Your task to perform on an android device: turn off smart reply in the gmail app Image 0: 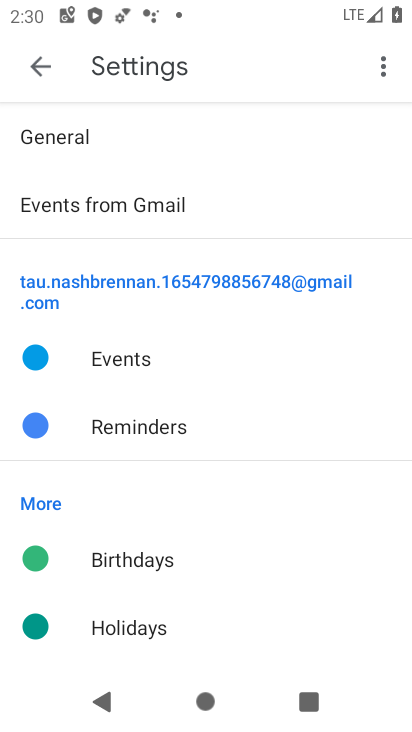
Step 0: press home button
Your task to perform on an android device: turn off smart reply in the gmail app Image 1: 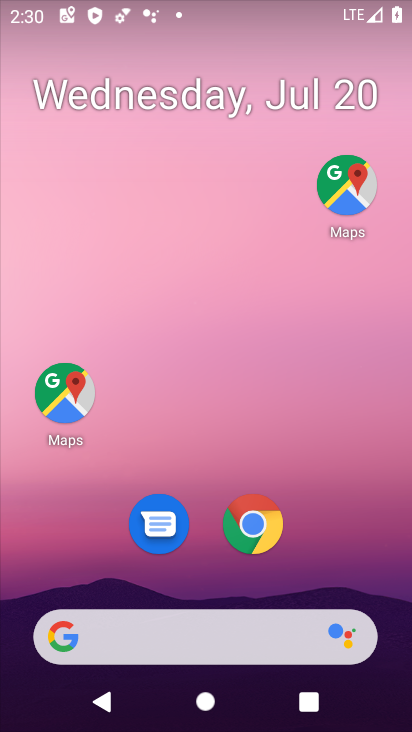
Step 1: drag from (240, 480) to (292, 55)
Your task to perform on an android device: turn off smart reply in the gmail app Image 2: 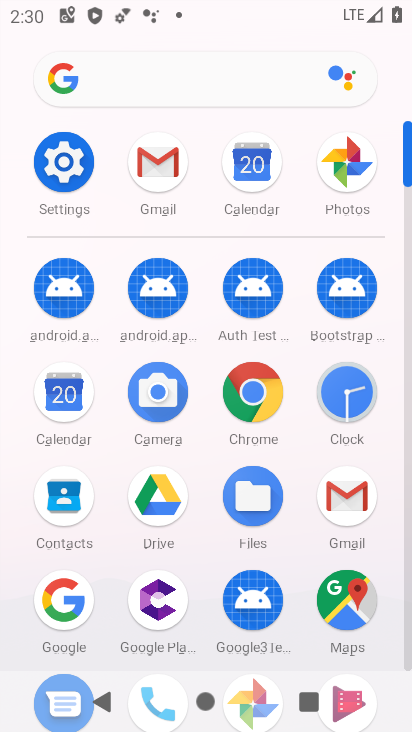
Step 2: click (168, 166)
Your task to perform on an android device: turn off smart reply in the gmail app Image 3: 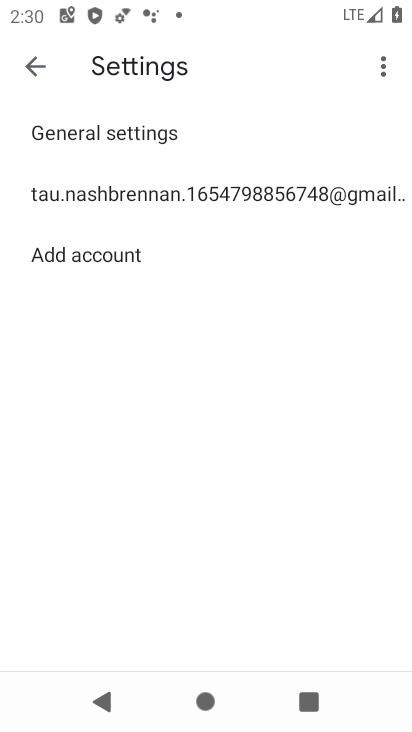
Step 3: press home button
Your task to perform on an android device: turn off smart reply in the gmail app Image 4: 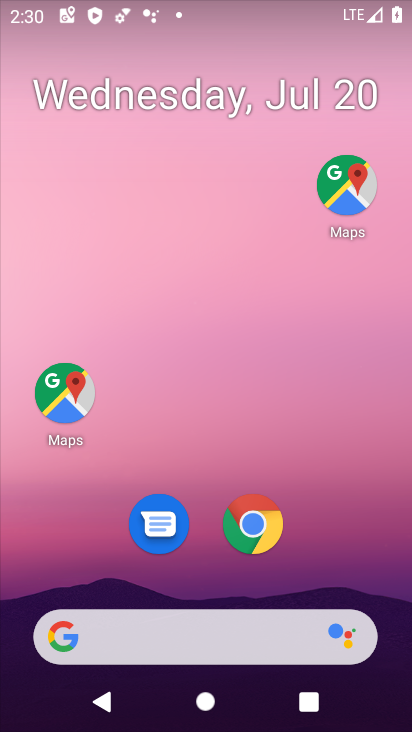
Step 4: drag from (302, 548) to (285, 136)
Your task to perform on an android device: turn off smart reply in the gmail app Image 5: 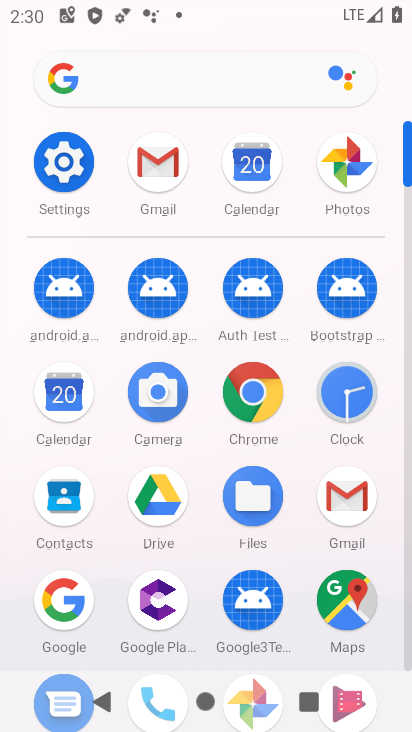
Step 5: click (166, 178)
Your task to perform on an android device: turn off smart reply in the gmail app Image 6: 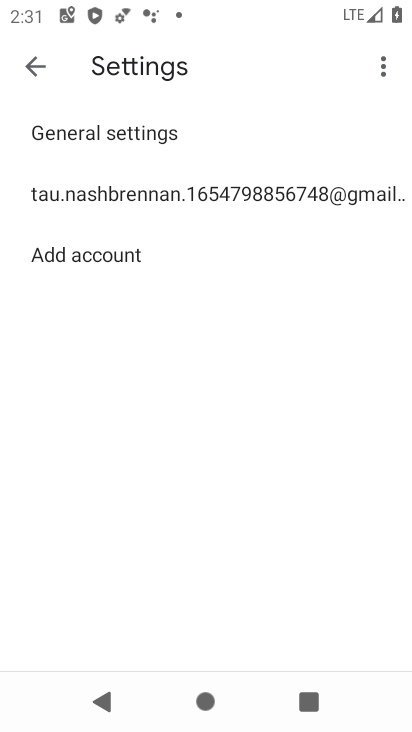
Step 6: click (166, 184)
Your task to perform on an android device: turn off smart reply in the gmail app Image 7: 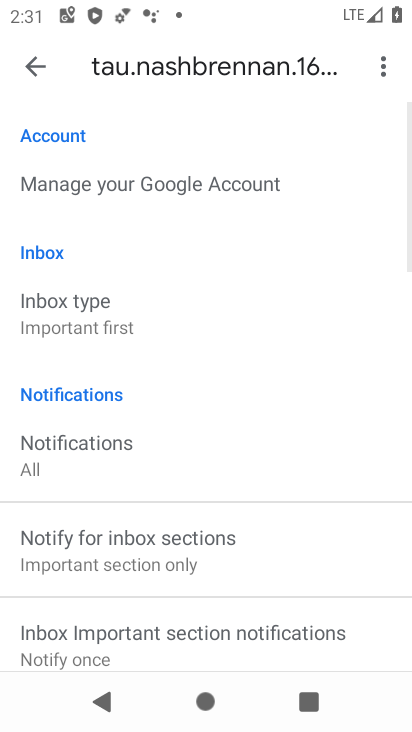
Step 7: drag from (246, 497) to (292, 195)
Your task to perform on an android device: turn off smart reply in the gmail app Image 8: 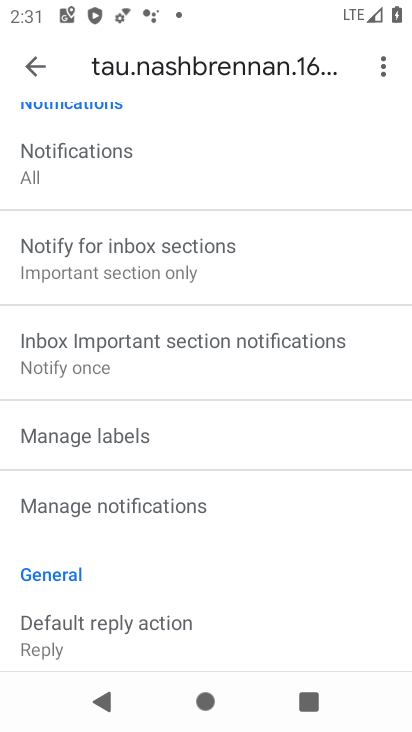
Step 8: drag from (230, 520) to (289, 97)
Your task to perform on an android device: turn off smart reply in the gmail app Image 9: 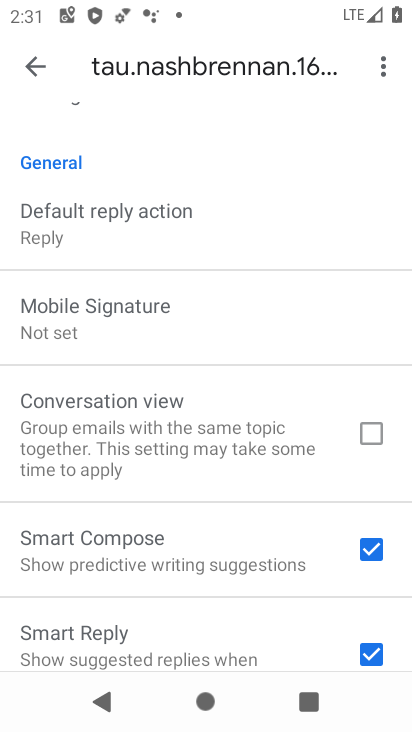
Step 9: drag from (274, 509) to (281, 243)
Your task to perform on an android device: turn off smart reply in the gmail app Image 10: 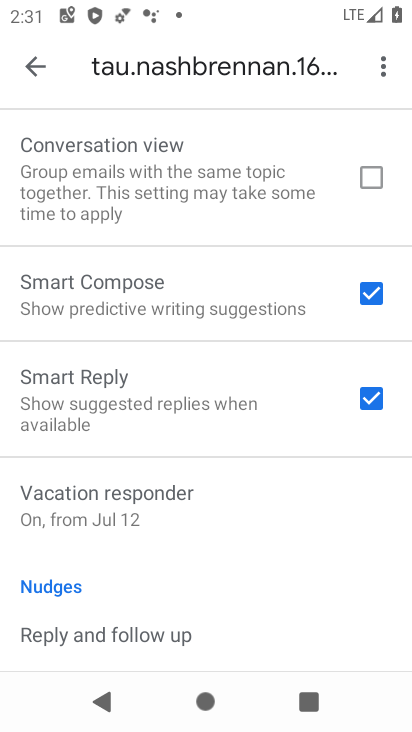
Step 10: click (367, 395)
Your task to perform on an android device: turn off smart reply in the gmail app Image 11: 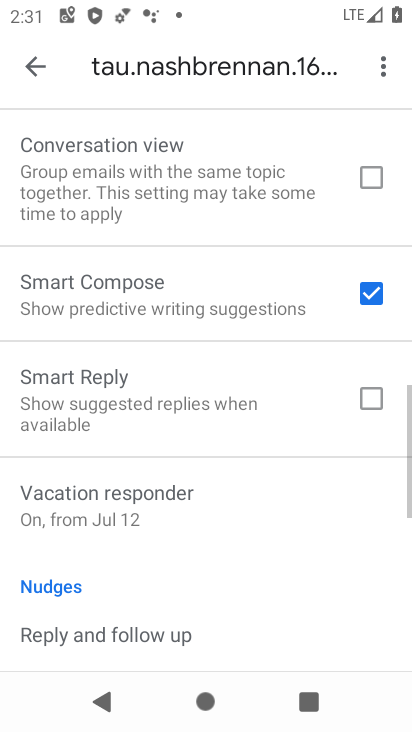
Step 11: task complete